Your task to perform on an android device: turn off javascript in the chrome app Image 0: 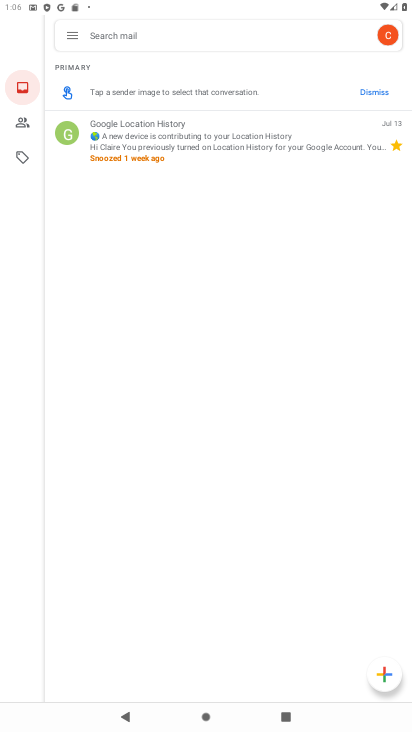
Step 0: press home button
Your task to perform on an android device: turn off javascript in the chrome app Image 1: 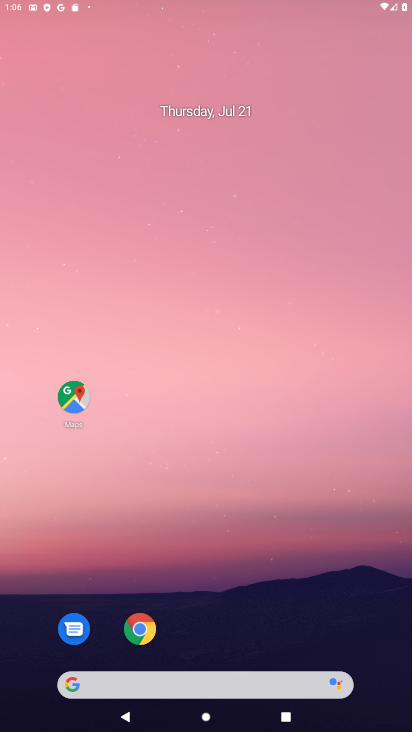
Step 1: click (208, 640)
Your task to perform on an android device: turn off javascript in the chrome app Image 2: 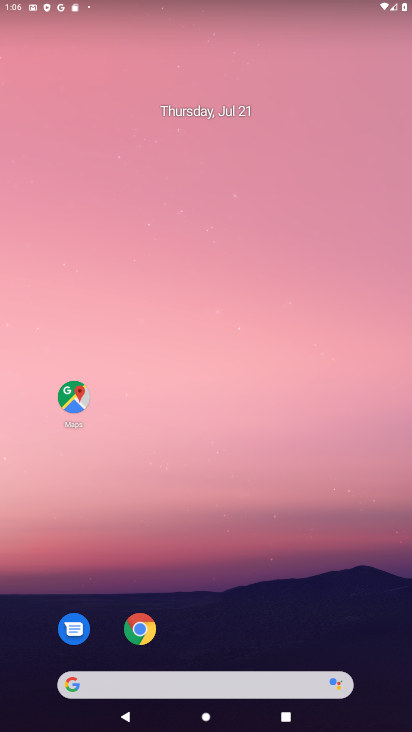
Step 2: click (145, 628)
Your task to perform on an android device: turn off javascript in the chrome app Image 3: 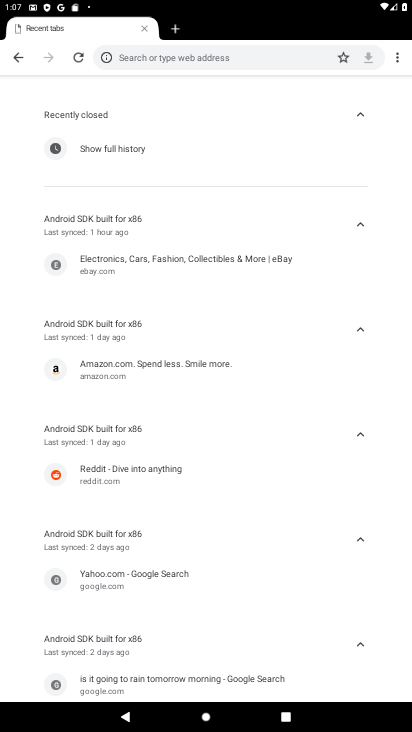
Step 3: click (394, 62)
Your task to perform on an android device: turn off javascript in the chrome app Image 4: 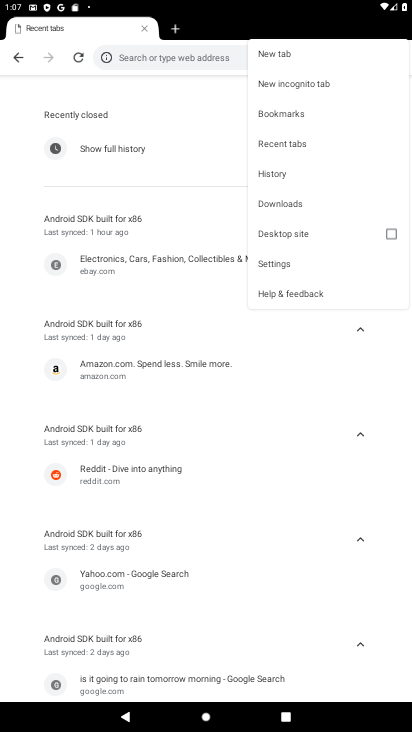
Step 4: click (275, 271)
Your task to perform on an android device: turn off javascript in the chrome app Image 5: 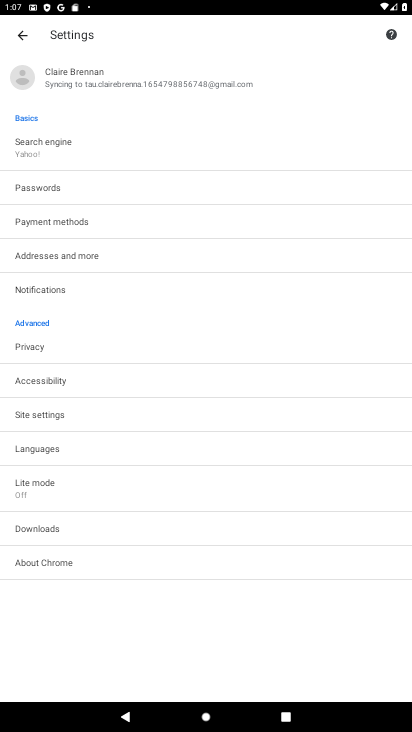
Step 5: click (61, 418)
Your task to perform on an android device: turn off javascript in the chrome app Image 6: 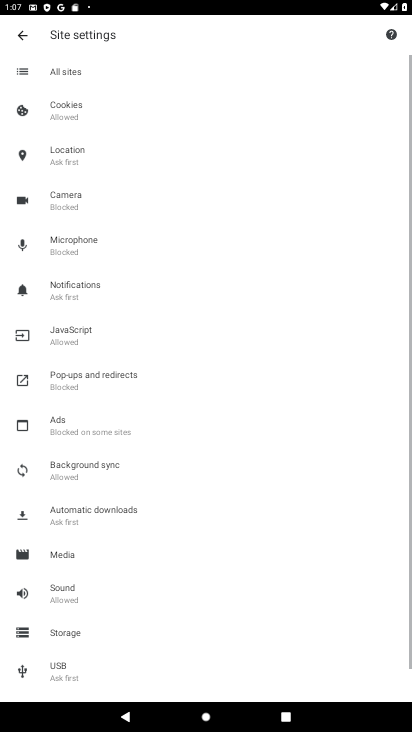
Step 6: click (92, 340)
Your task to perform on an android device: turn off javascript in the chrome app Image 7: 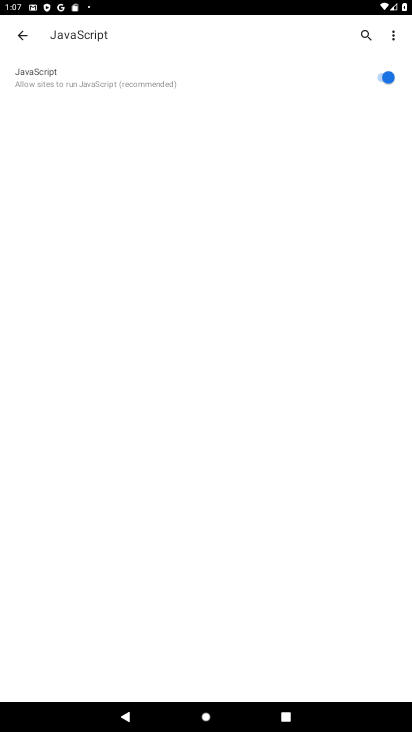
Step 7: click (383, 82)
Your task to perform on an android device: turn off javascript in the chrome app Image 8: 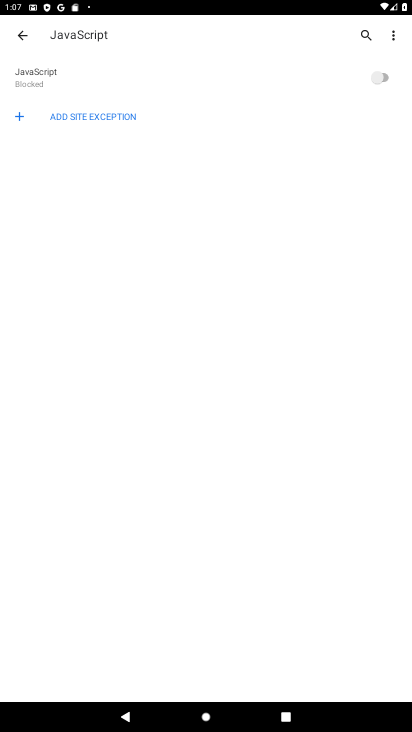
Step 8: task complete